Your task to perform on an android device: check battery use Image 0: 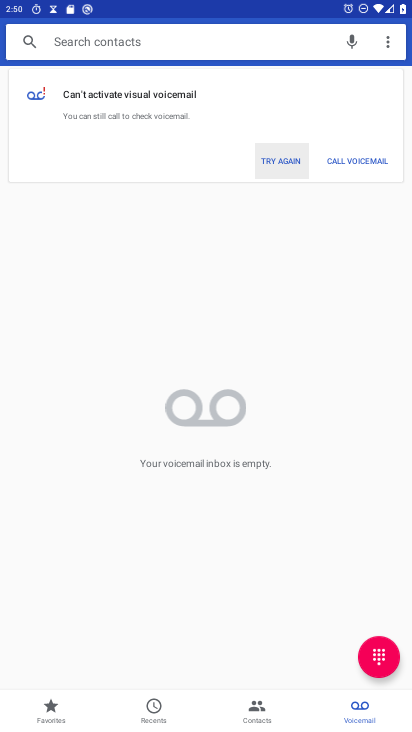
Step 0: press home button
Your task to perform on an android device: check battery use Image 1: 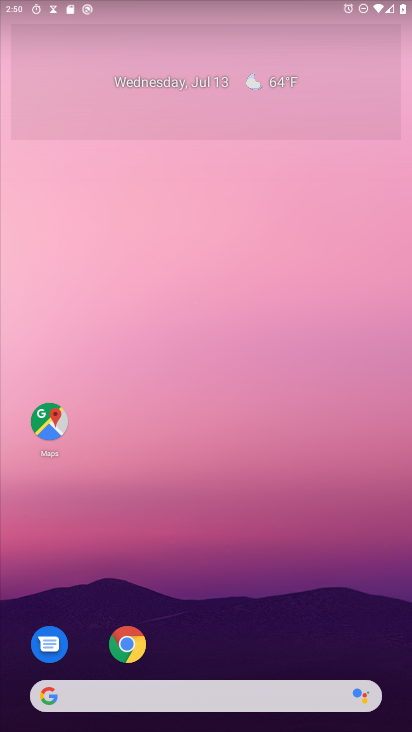
Step 1: drag from (248, 612) to (273, 97)
Your task to perform on an android device: check battery use Image 2: 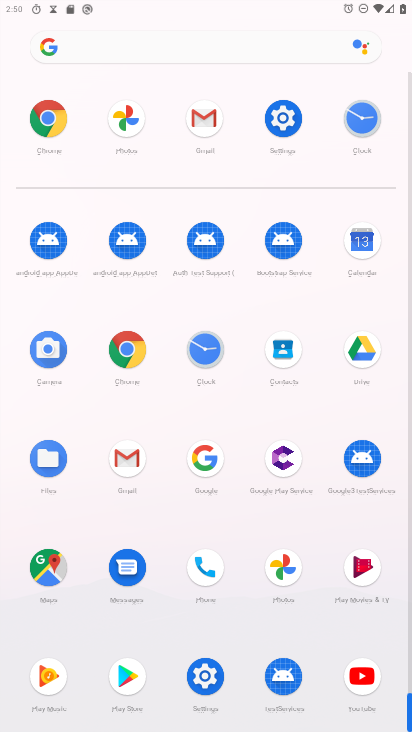
Step 2: click (282, 118)
Your task to perform on an android device: check battery use Image 3: 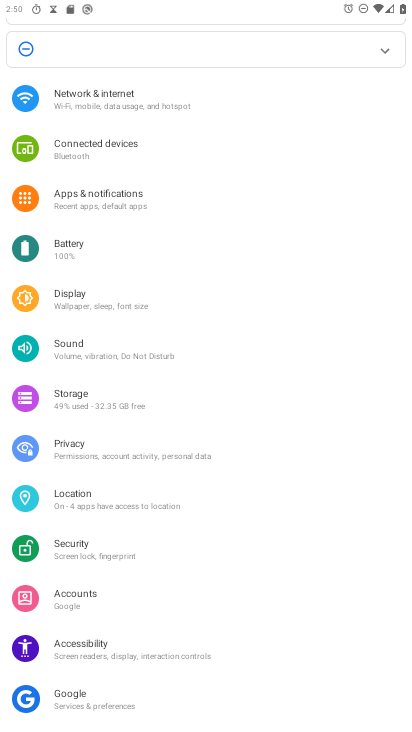
Step 3: click (79, 250)
Your task to perform on an android device: check battery use Image 4: 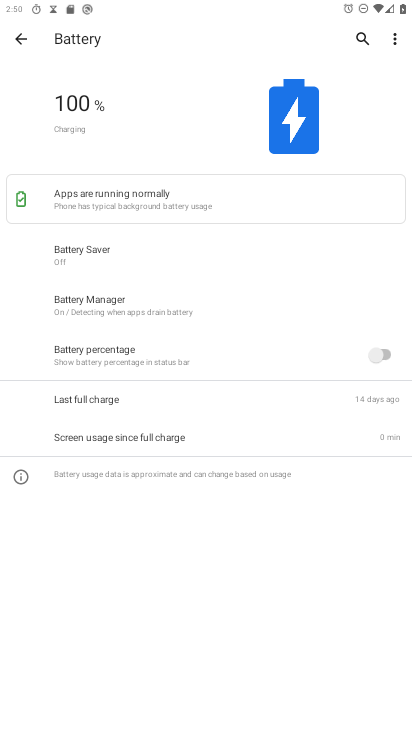
Step 4: task complete